Your task to perform on an android device: Show me productivity apps on the Play Store Image 0: 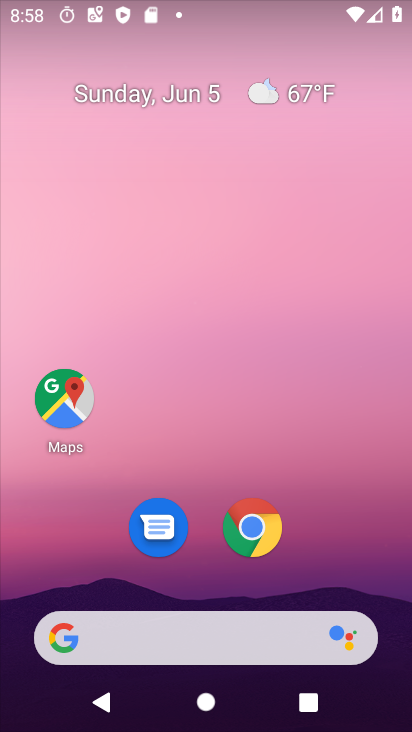
Step 0: drag from (240, 724) to (224, 0)
Your task to perform on an android device: Show me productivity apps on the Play Store Image 1: 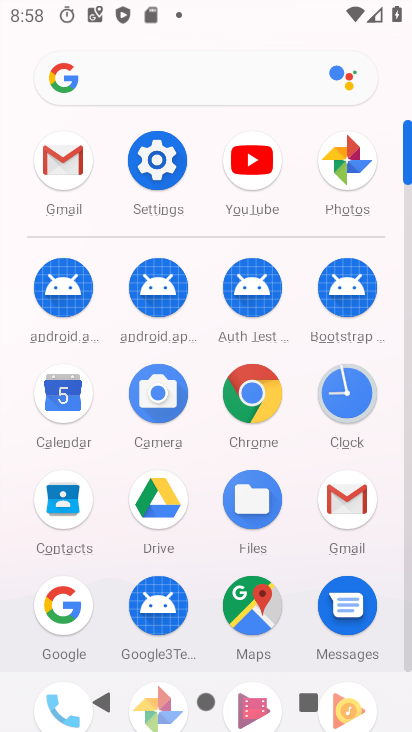
Step 1: drag from (213, 587) to (213, 238)
Your task to perform on an android device: Show me productivity apps on the Play Store Image 2: 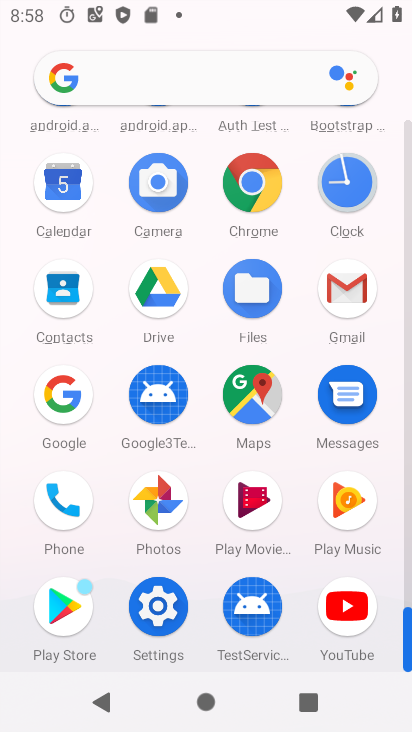
Step 2: click (59, 605)
Your task to perform on an android device: Show me productivity apps on the Play Store Image 3: 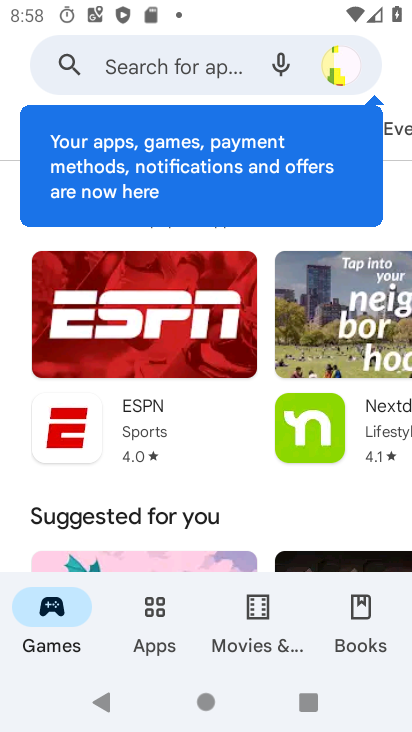
Step 3: click (148, 623)
Your task to perform on an android device: Show me productivity apps on the Play Store Image 4: 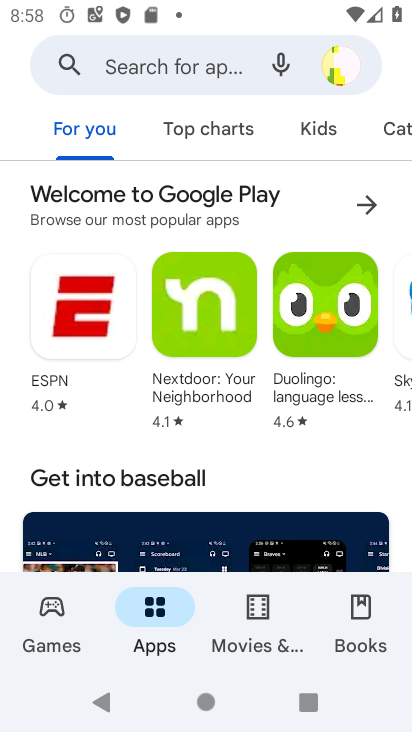
Step 4: click (393, 128)
Your task to perform on an android device: Show me productivity apps on the Play Store Image 5: 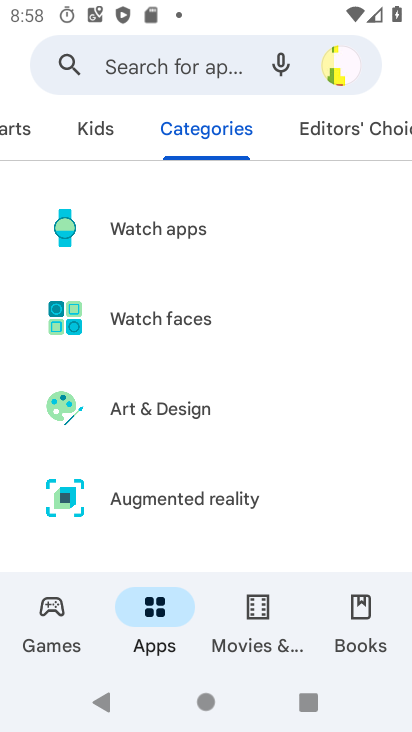
Step 5: drag from (206, 538) to (209, 164)
Your task to perform on an android device: Show me productivity apps on the Play Store Image 6: 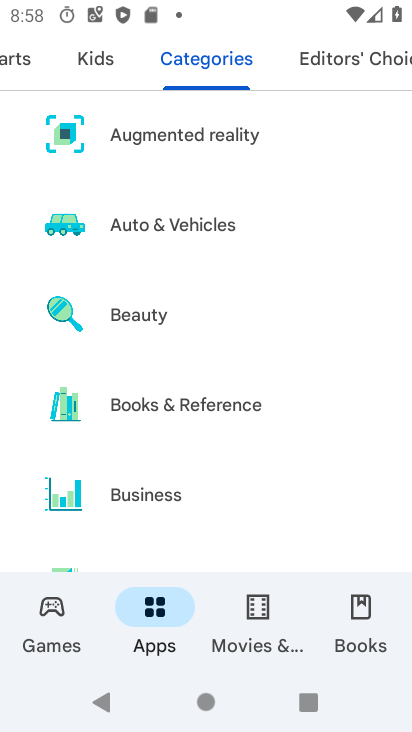
Step 6: drag from (207, 551) to (225, 212)
Your task to perform on an android device: Show me productivity apps on the Play Store Image 7: 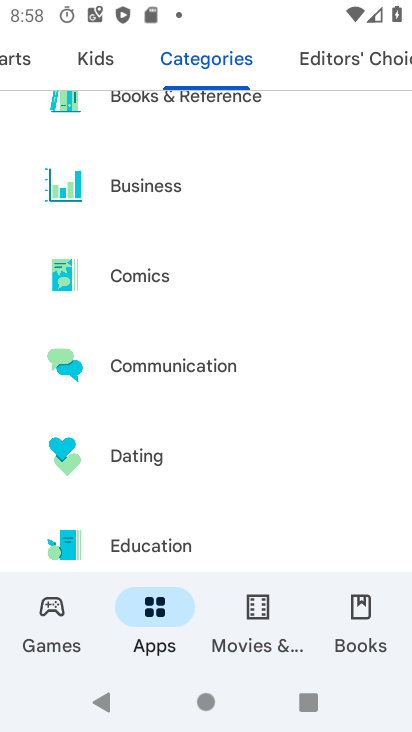
Step 7: drag from (226, 545) to (232, 154)
Your task to perform on an android device: Show me productivity apps on the Play Store Image 8: 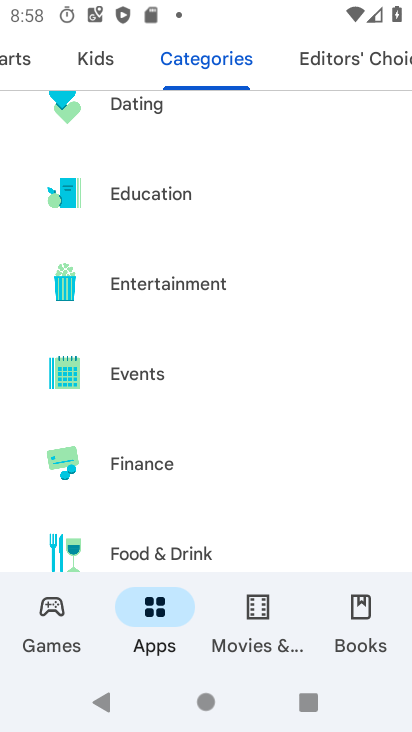
Step 8: drag from (241, 560) to (229, 220)
Your task to perform on an android device: Show me productivity apps on the Play Store Image 9: 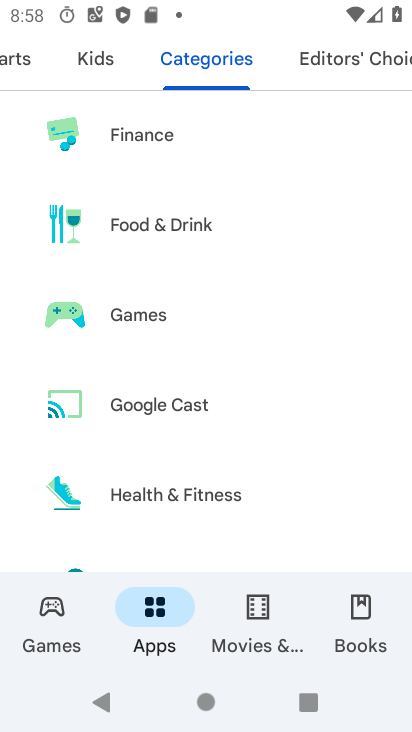
Step 9: drag from (229, 552) to (231, 122)
Your task to perform on an android device: Show me productivity apps on the Play Store Image 10: 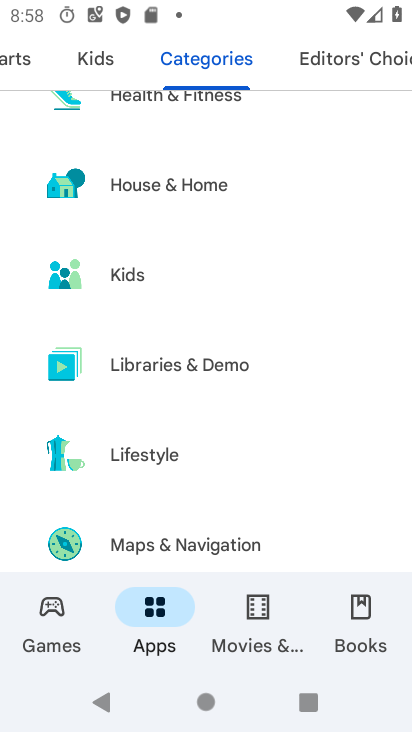
Step 10: drag from (221, 549) to (224, 136)
Your task to perform on an android device: Show me productivity apps on the Play Store Image 11: 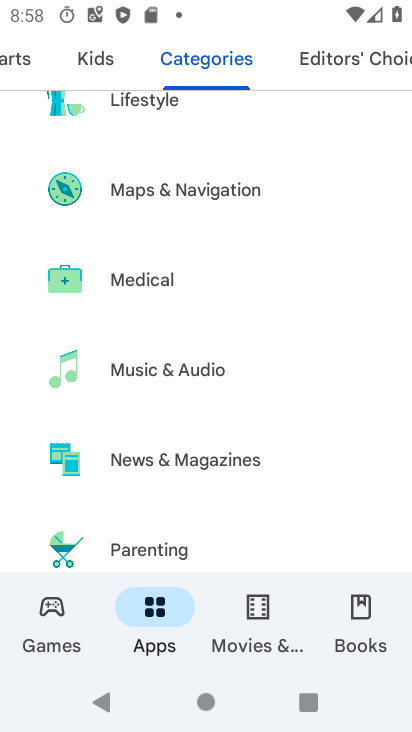
Step 11: drag from (220, 561) to (218, 178)
Your task to perform on an android device: Show me productivity apps on the Play Store Image 12: 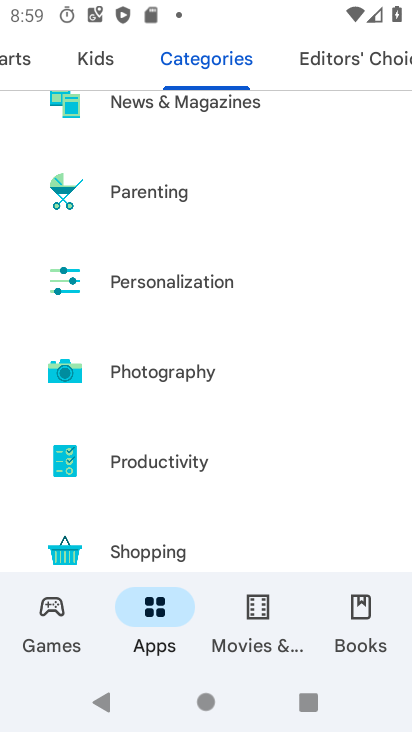
Step 12: click (171, 461)
Your task to perform on an android device: Show me productivity apps on the Play Store Image 13: 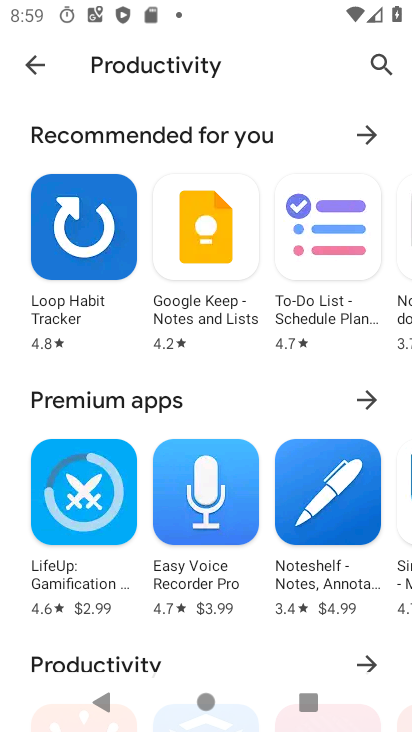
Step 13: task complete